Your task to perform on an android device: Do I have any events today? Image 0: 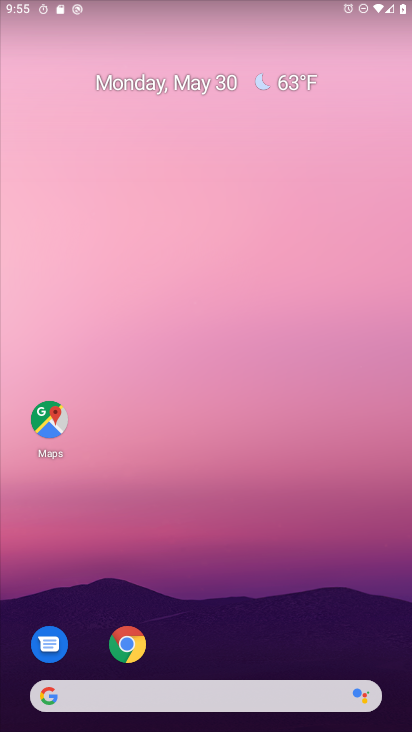
Step 0: drag from (225, 636) to (196, 102)
Your task to perform on an android device: Do I have any events today? Image 1: 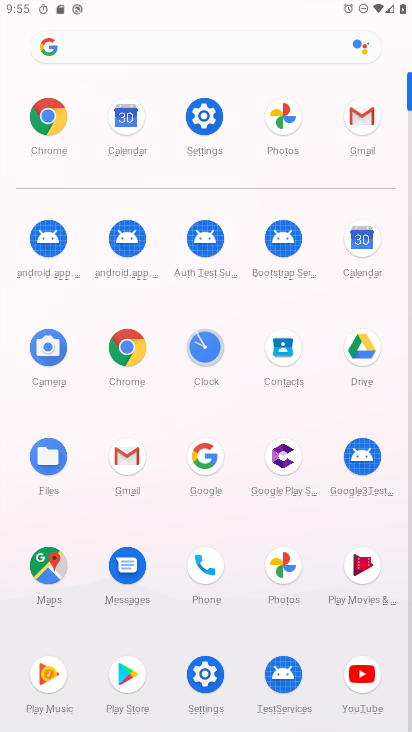
Step 1: click (364, 249)
Your task to perform on an android device: Do I have any events today? Image 2: 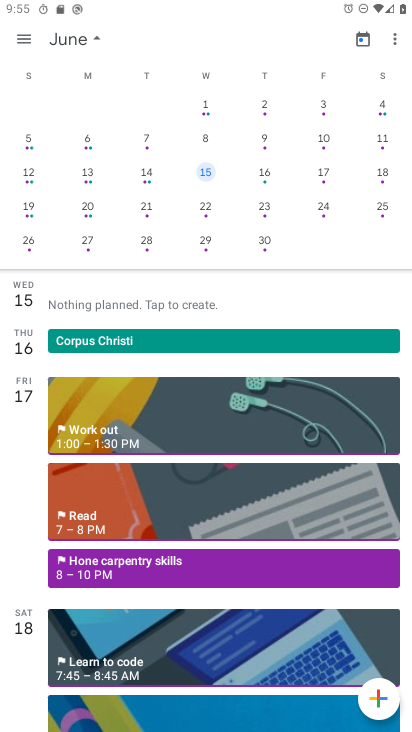
Step 2: drag from (55, 236) to (353, 202)
Your task to perform on an android device: Do I have any events today? Image 3: 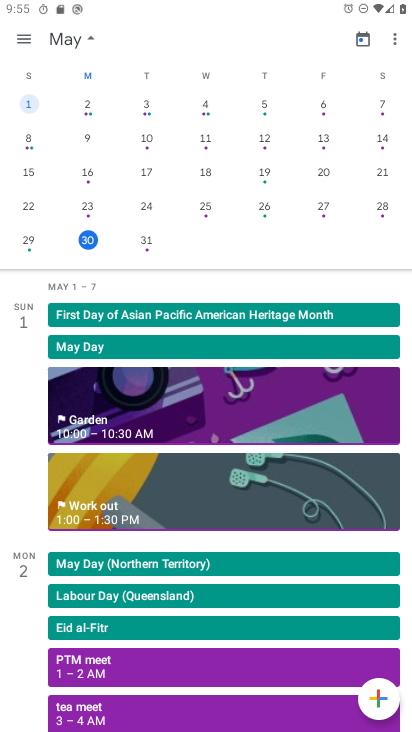
Step 3: click (93, 233)
Your task to perform on an android device: Do I have any events today? Image 4: 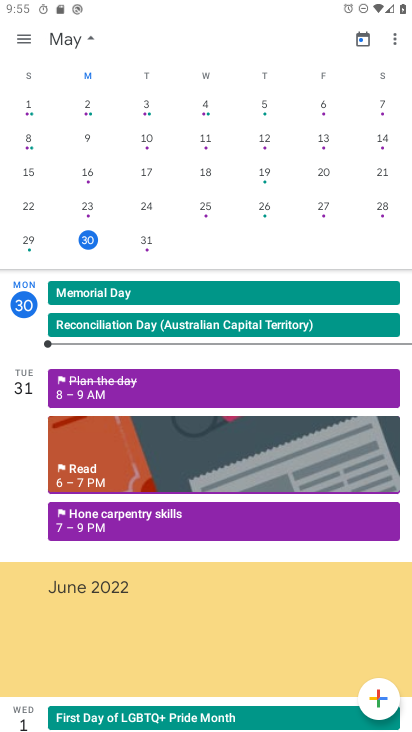
Step 4: task complete